Your task to perform on an android device: Search for vegetarian restaurants on Maps Image 0: 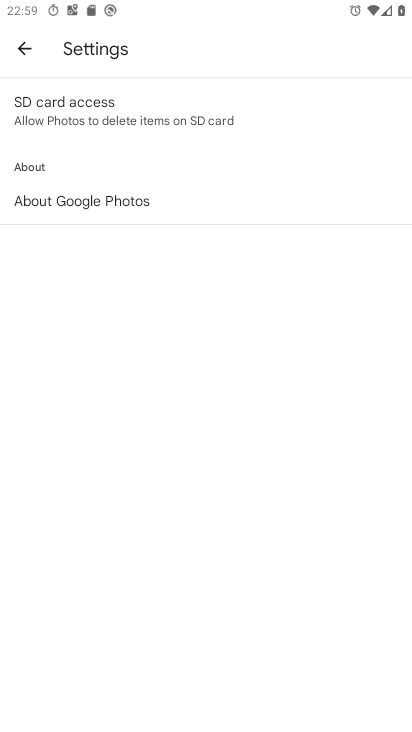
Step 0: drag from (234, 457) to (204, 141)
Your task to perform on an android device: Search for vegetarian restaurants on Maps Image 1: 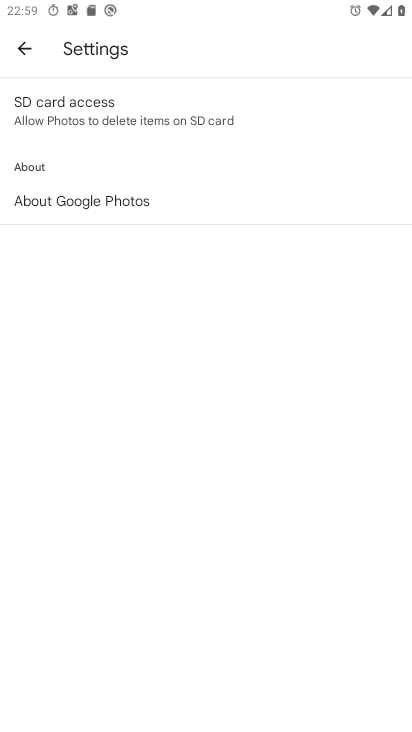
Step 1: press home button
Your task to perform on an android device: Search for vegetarian restaurants on Maps Image 2: 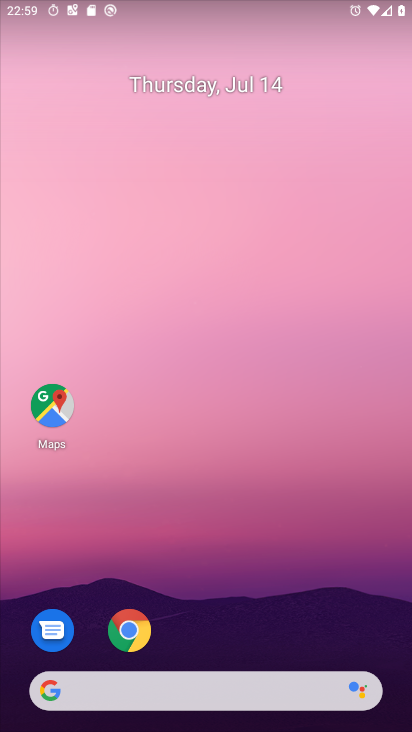
Step 2: click (160, 297)
Your task to perform on an android device: Search for vegetarian restaurants on Maps Image 3: 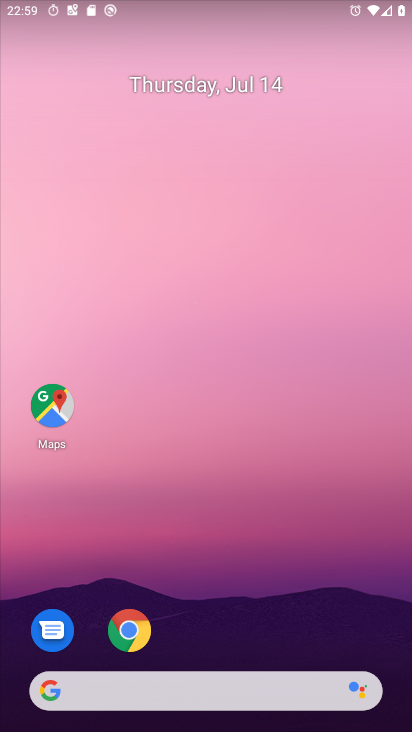
Step 3: drag from (217, 622) to (237, 173)
Your task to perform on an android device: Search for vegetarian restaurants on Maps Image 4: 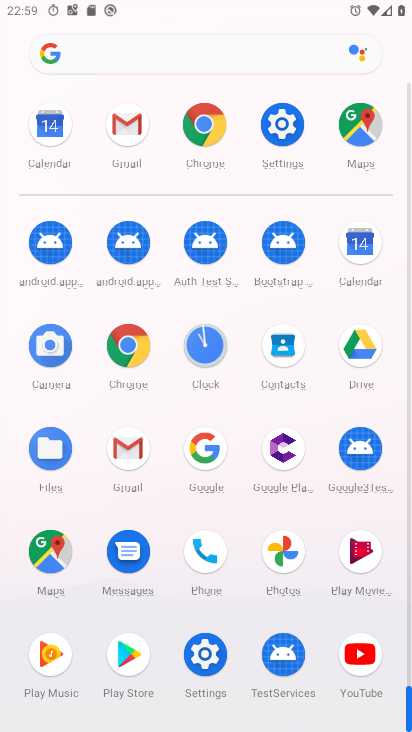
Step 4: click (51, 552)
Your task to perform on an android device: Search for vegetarian restaurants on Maps Image 5: 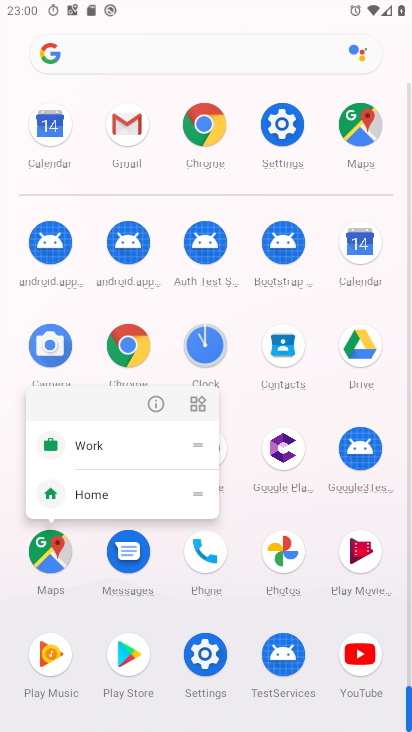
Step 5: click (154, 402)
Your task to perform on an android device: Search for vegetarian restaurants on Maps Image 6: 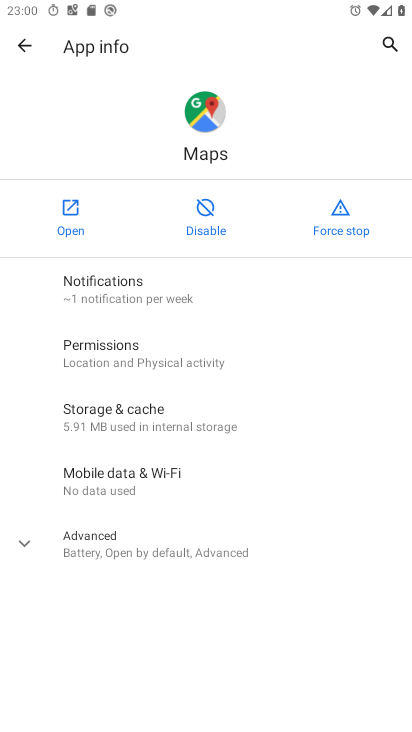
Step 6: click (68, 208)
Your task to perform on an android device: Search for vegetarian restaurants on Maps Image 7: 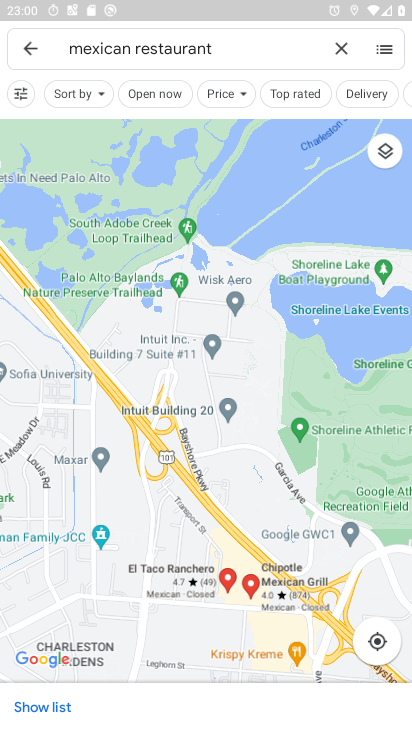
Step 7: click (336, 52)
Your task to perform on an android device: Search for vegetarian restaurants on Maps Image 8: 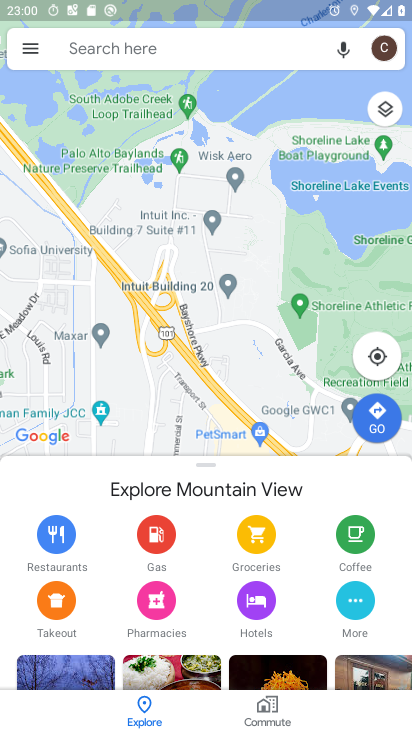
Step 8: click (245, 54)
Your task to perform on an android device: Search for vegetarian restaurants on Maps Image 9: 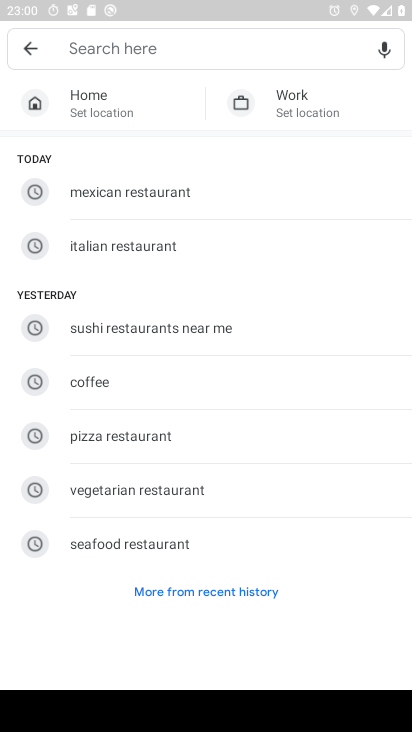
Step 9: click (139, 494)
Your task to perform on an android device: Search for vegetarian restaurants on Maps Image 10: 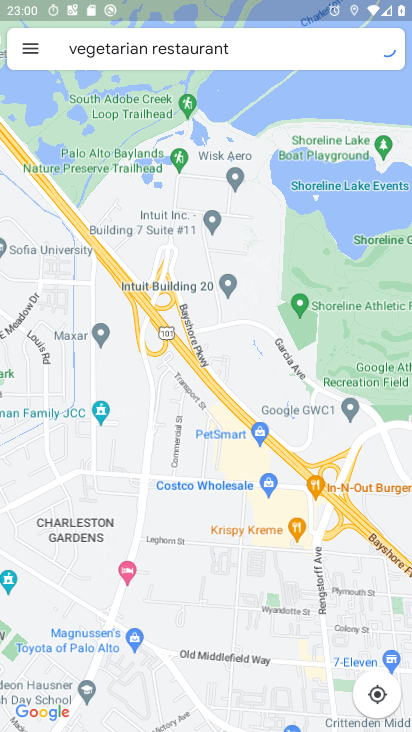
Step 10: task complete